Your task to perform on an android device: open app "Walmart Shopping & Grocery" (install if not already installed) and go to login screen Image 0: 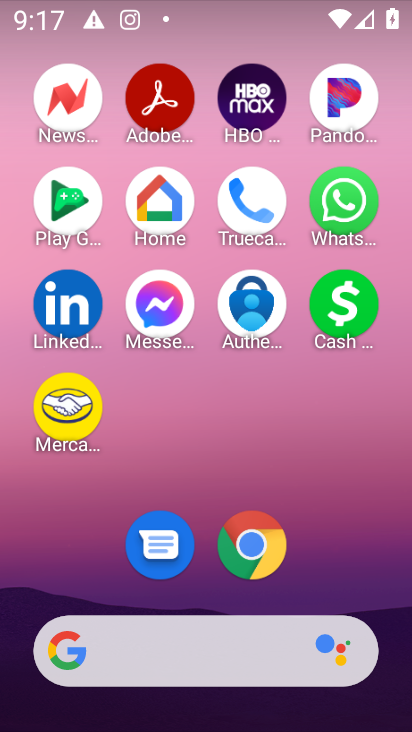
Step 0: press home button
Your task to perform on an android device: open app "Walmart Shopping & Grocery" (install if not already installed) and go to login screen Image 1: 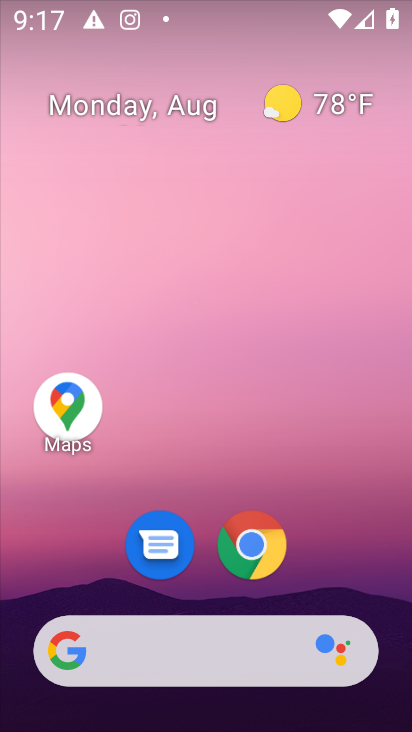
Step 1: drag from (347, 571) to (339, 118)
Your task to perform on an android device: open app "Walmart Shopping & Grocery" (install if not already installed) and go to login screen Image 2: 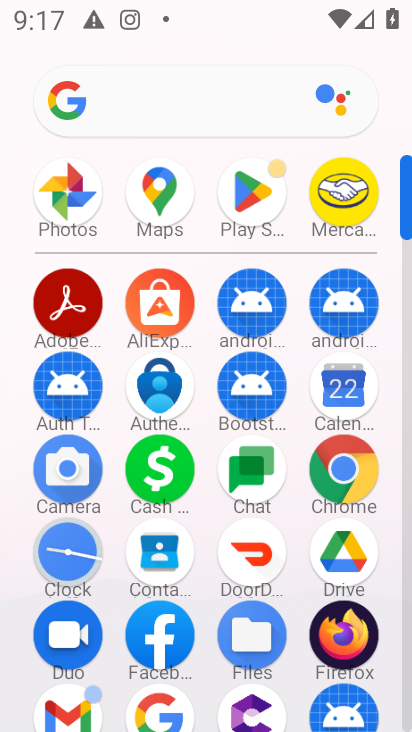
Step 2: click (259, 192)
Your task to perform on an android device: open app "Walmart Shopping & Grocery" (install if not already installed) and go to login screen Image 3: 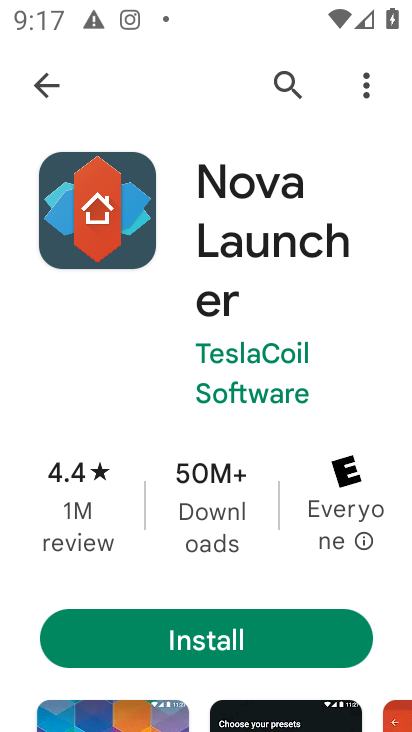
Step 3: press back button
Your task to perform on an android device: open app "Walmart Shopping & Grocery" (install if not already installed) and go to login screen Image 4: 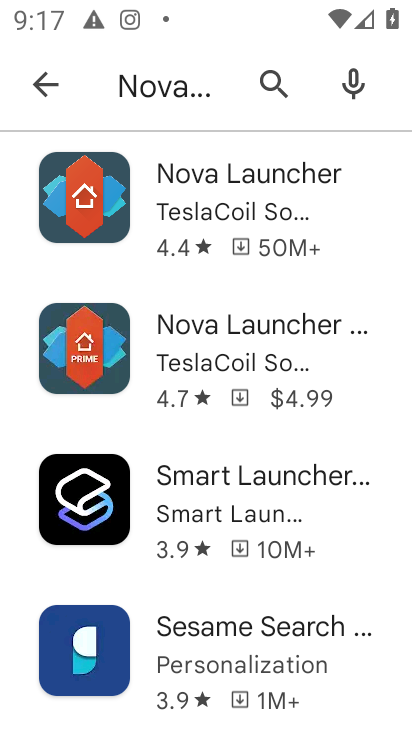
Step 4: press back button
Your task to perform on an android device: open app "Walmart Shopping & Grocery" (install if not already installed) and go to login screen Image 5: 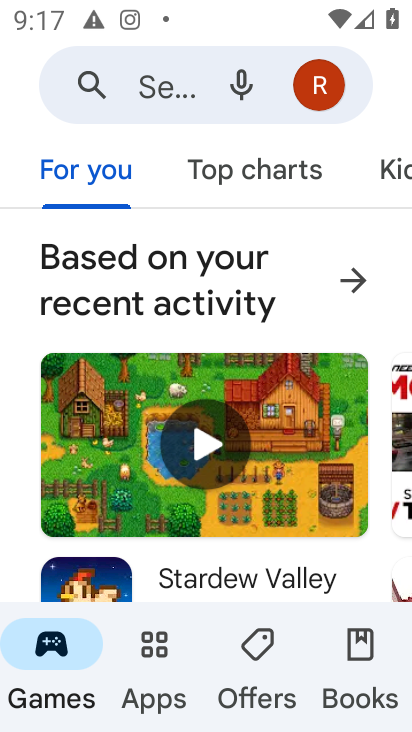
Step 5: click (143, 95)
Your task to perform on an android device: open app "Walmart Shopping & Grocery" (install if not already installed) and go to login screen Image 6: 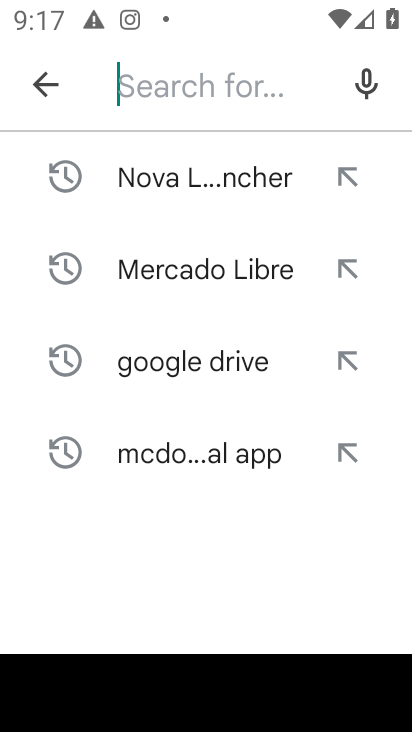
Step 6: type "Walmart Shopping & Grocery"
Your task to perform on an android device: open app "Walmart Shopping & Grocery" (install if not already installed) and go to login screen Image 7: 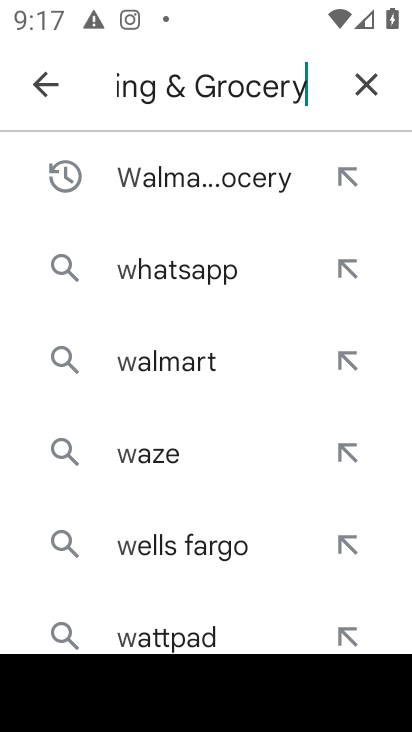
Step 7: press enter
Your task to perform on an android device: open app "Walmart Shopping & Grocery" (install if not already installed) and go to login screen Image 8: 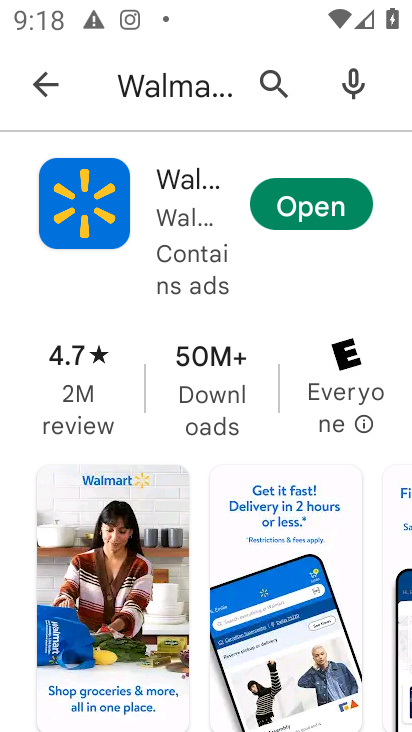
Step 8: click (308, 201)
Your task to perform on an android device: open app "Walmart Shopping & Grocery" (install if not already installed) and go to login screen Image 9: 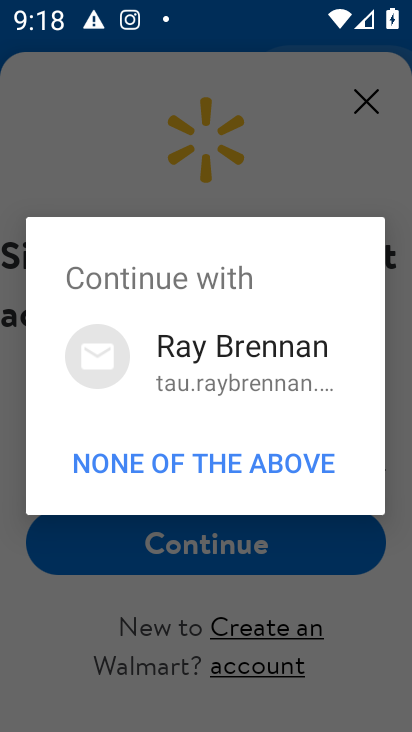
Step 9: click (216, 467)
Your task to perform on an android device: open app "Walmart Shopping & Grocery" (install if not already installed) and go to login screen Image 10: 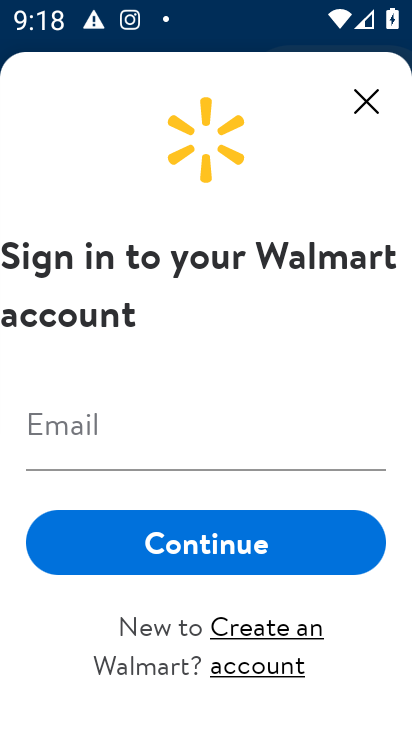
Step 10: task complete